Your task to perform on an android device: Open calendar and show me the first week of next month Image 0: 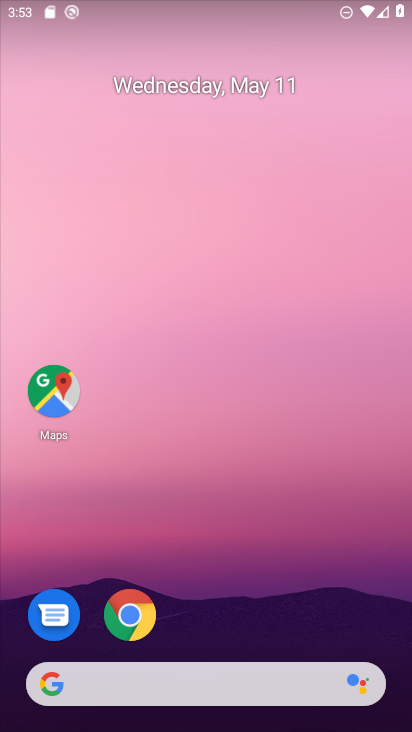
Step 0: drag from (251, 566) to (229, 104)
Your task to perform on an android device: Open calendar and show me the first week of next month Image 1: 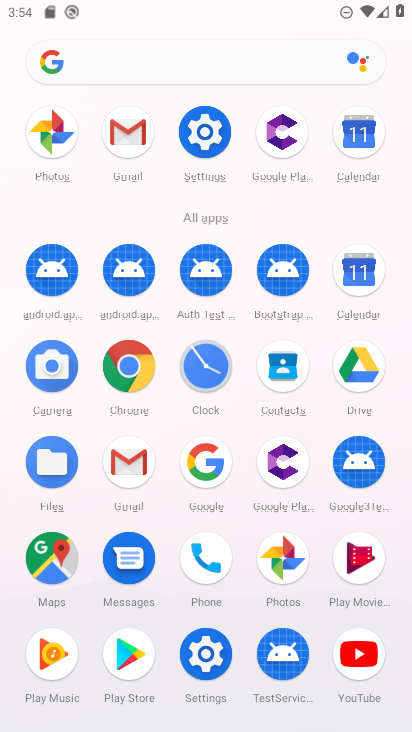
Step 1: click (372, 132)
Your task to perform on an android device: Open calendar and show me the first week of next month Image 2: 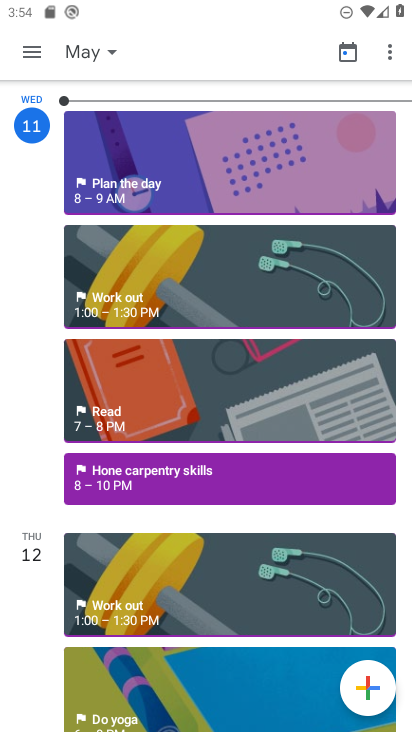
Step 2: click (21, 57)
Your task to perform on an android device: Open calendar and show me the first week of next month Image 3: 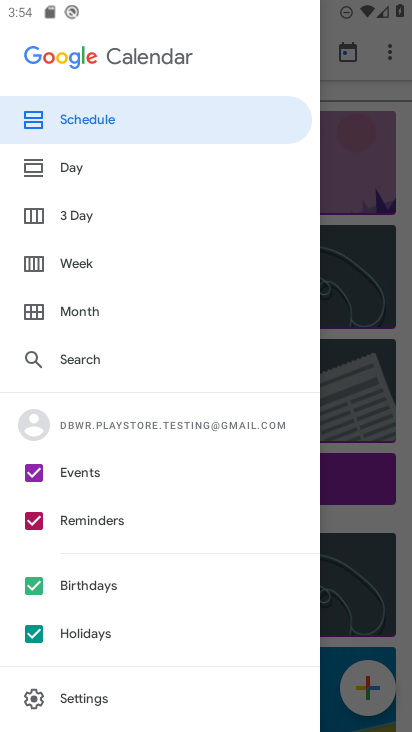
Step 3: click (102, 269)
Your task to perform on an android device: Open calendar and show me the first week of next month Image 4: 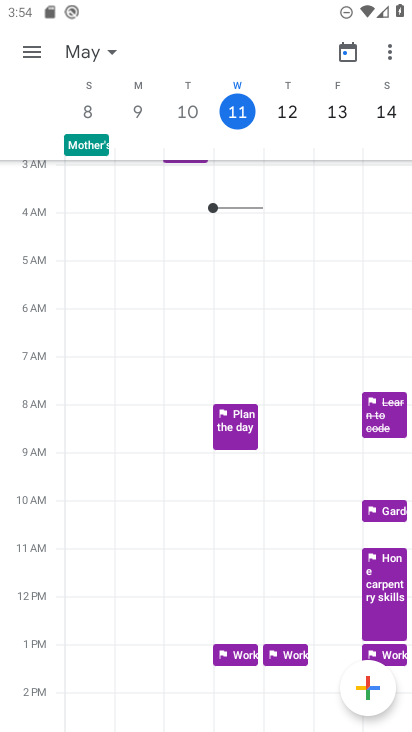
Step 4: click (97, 57)
Your task to perform on an android device: Open calendar and show me the first week of next month Image 5: 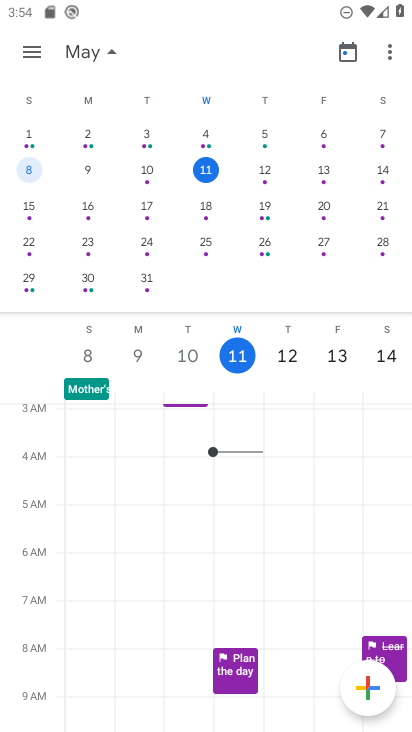
Step 5: drag from (403, 206) to (2, 274)
Your task to perform on an android device: Open calendar and show me the first week of next month Image 6: 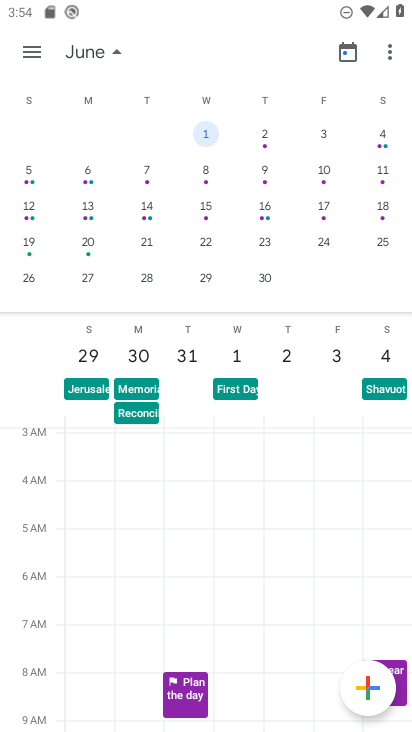
Step 6: click (39, 56)
Your task to perform on an android device: Open calendar and show me the first week of next month Image 7: 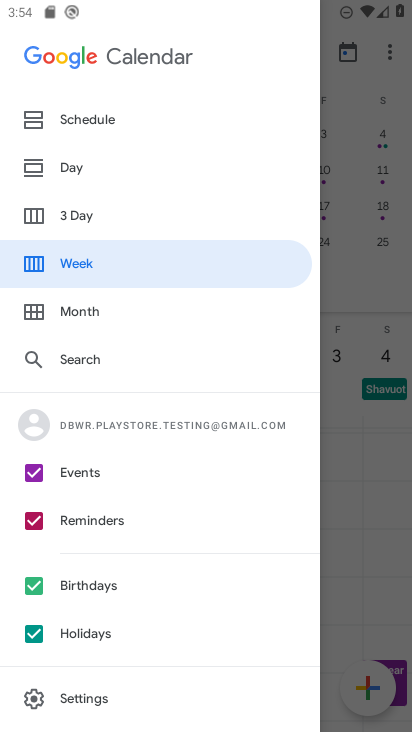
Step 7: click (160, 272)
Your task to perform on an android device: Open calendar and show me the first week of next month Image 8: 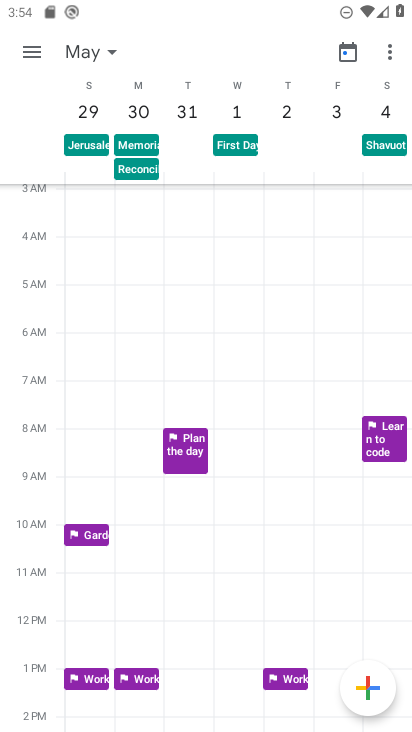
Step 8: task complete